Your task to perform on an android device: clear history in the chrome app Image 0: 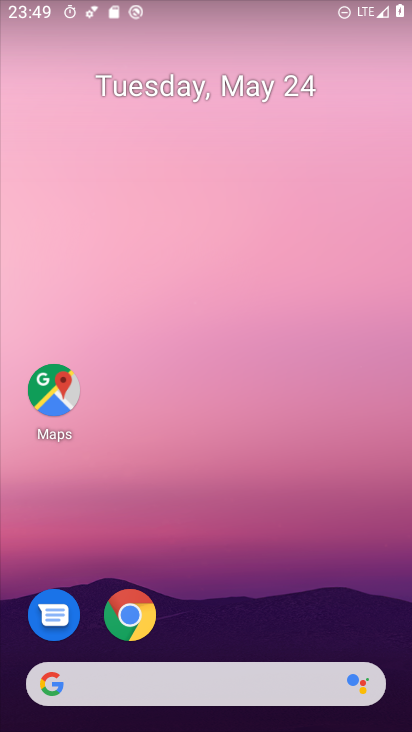
Step 0: drag from (230, 708) to (264, 67)
Your task to perform on an android device: clear history in the chrome app Image 1: 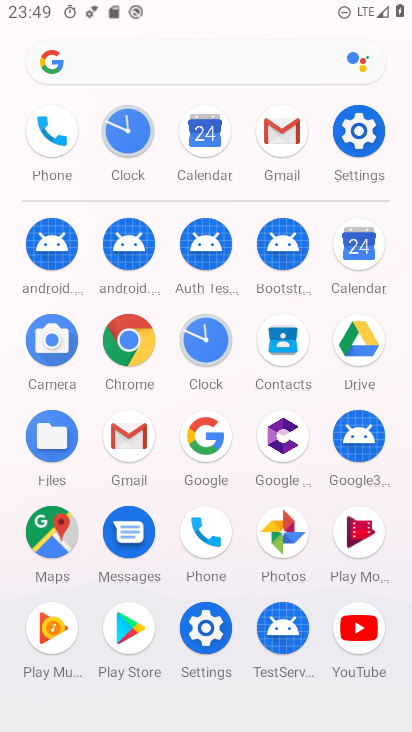
Step 1: click (355, 144)
Your task to perform on an android device: clear history in the chrome app Image 2: 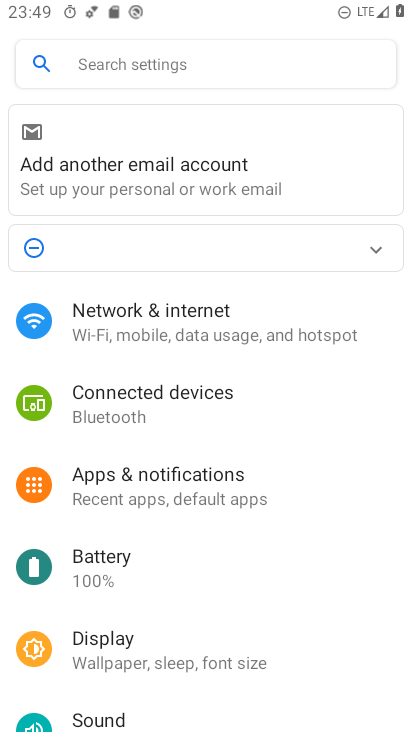
Step 2: press home button
Your task to perform on an android device: clear history in the chrome app Image 3: 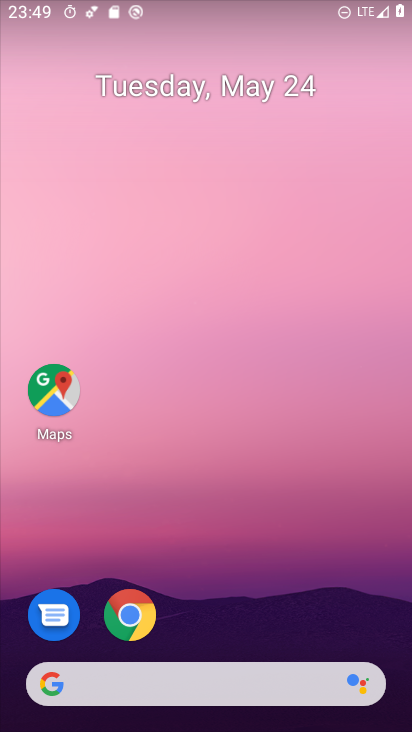
Step 3: drag from (232, 706) to (374, 75)
Your task to perform on an android device: clear history in the chrome app Image 4: 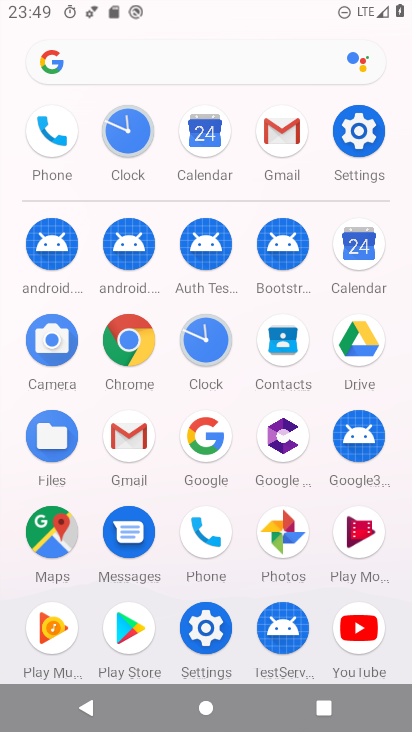
Step 4: click (112, 344)
Your task to perform on an android device: clear history in the chrome app Image 5: 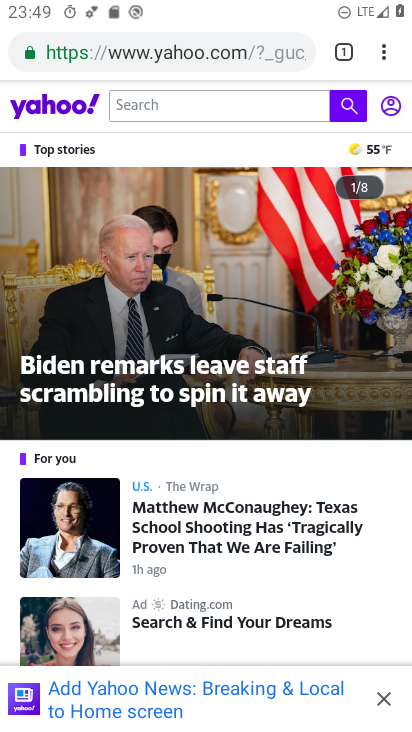
Step 5: click (381, 64)
Your task to perform on an android device: clear history in the chrome app Image 6: 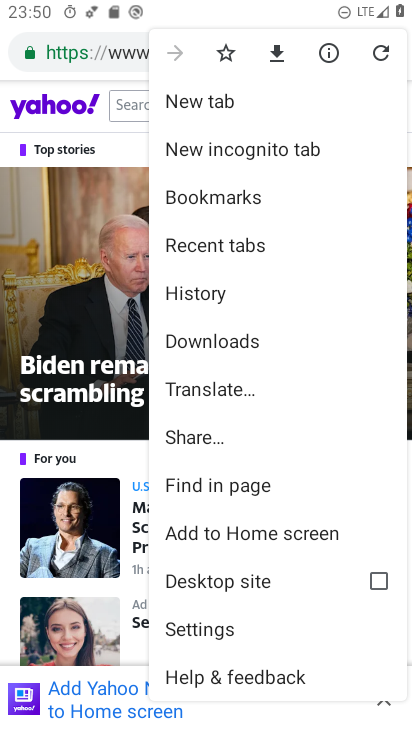
Step 6: click (190, 628)
Your task to perform on an android device: clear history in the chrome app Image 7: 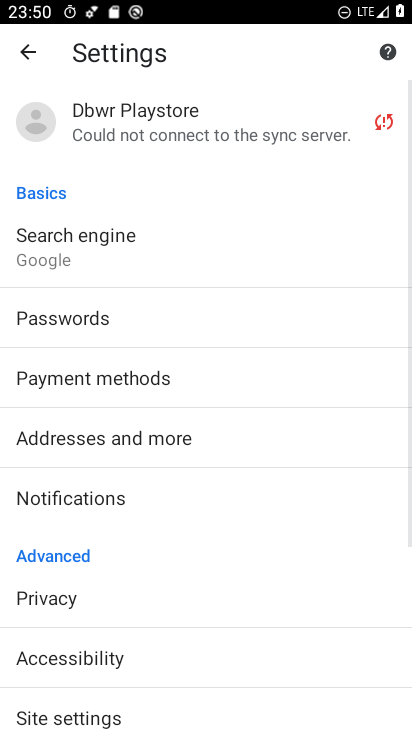
Step 7: click (34, 608)
Your task to perform on an android device: clear history in the chrome app Image 8: 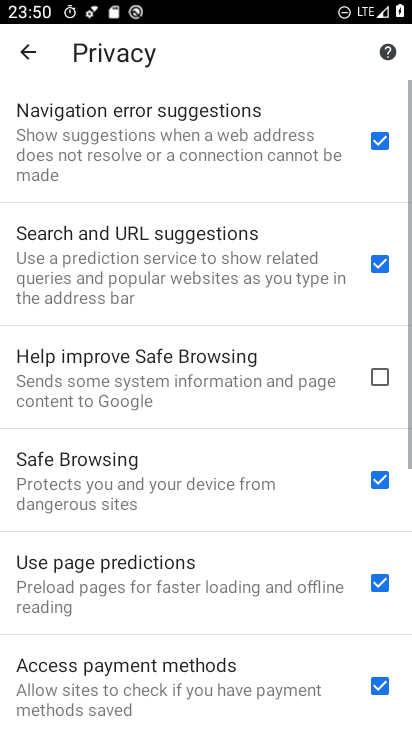
Step 8: drag from (47, 622) to (99, 166)
Your task to perform on an android device: clear history in the chrome app Image 9: 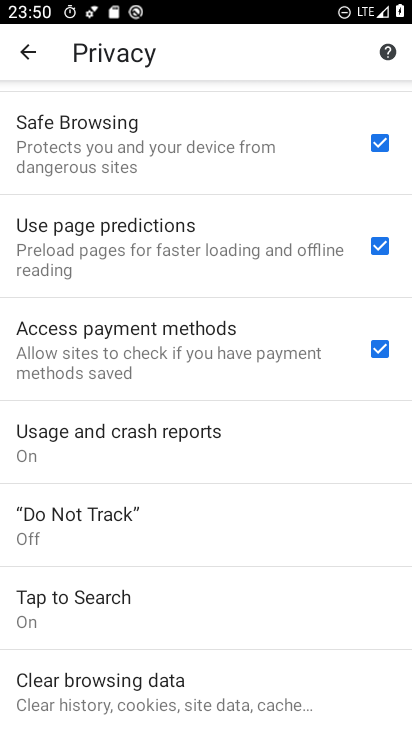
Step 9: click (116, 676)
Your task to perform on an android device: clear history in the chrome app Image 10: 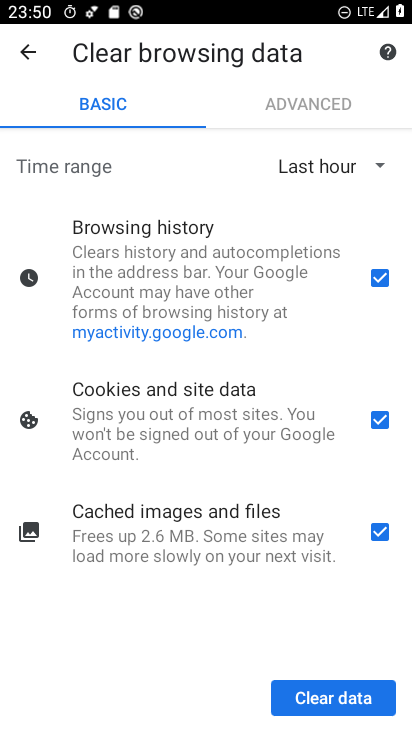
Step 10: click (332, 693)
Your task to perform on an android device: clear history in the chrome app Image 11: 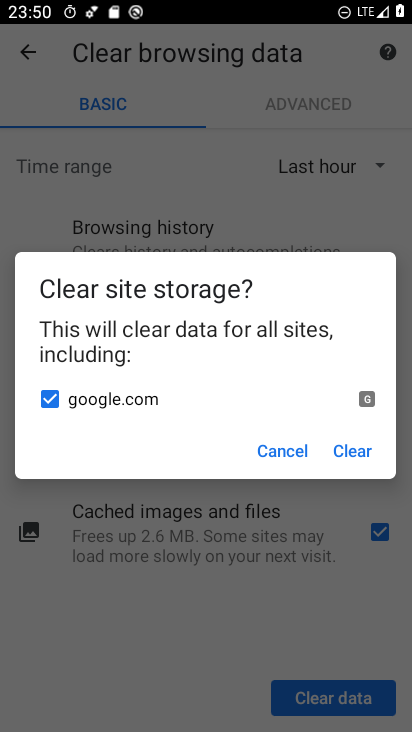
Step 11: task complete